Your task to perform on an android device: turn off smart reply in the gmail app Image 0: 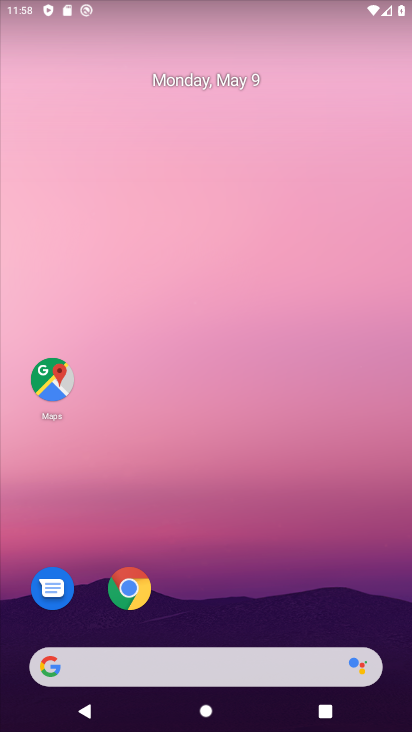
Step 0: drag from (252, 521) to (213, 0)
Your task to perform on an android device: turn off smart reply in the gmail app Image 1: 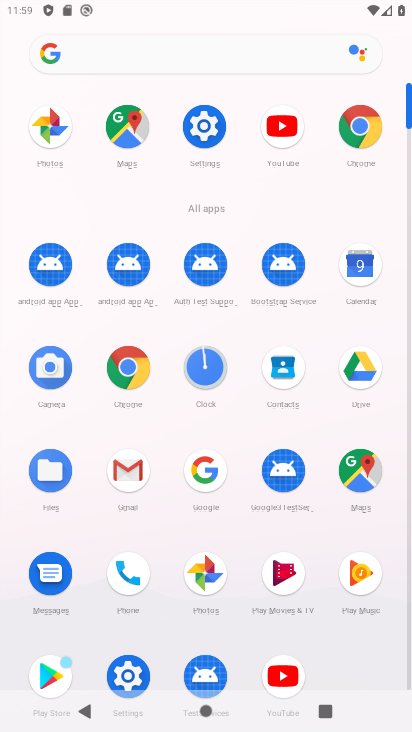
Step 1: click (130, 471)
Your task to perform on an android device: turn off smart reply in the gmail app Image 2: 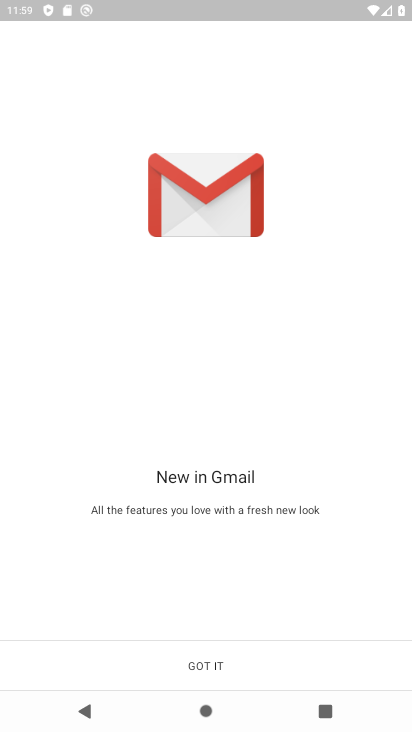
Step 2: click (224, 660)
Your task to perform on an android device: turn off smart reply in the gmail app Image 3: 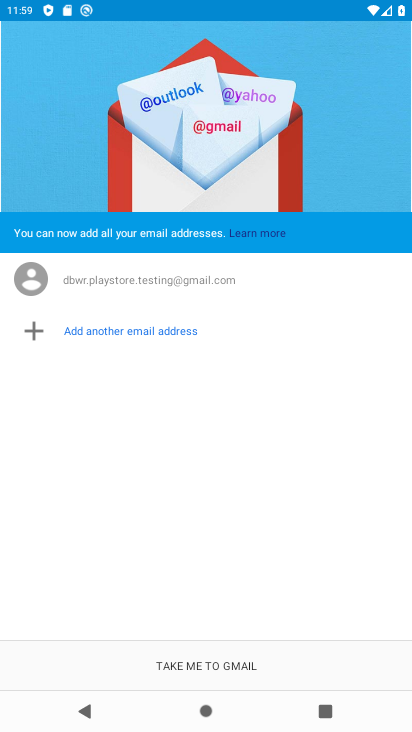
Step 3: click (239, 660)
Your task to perform on an android device: turn off smart reply in the gmail app Image 4: 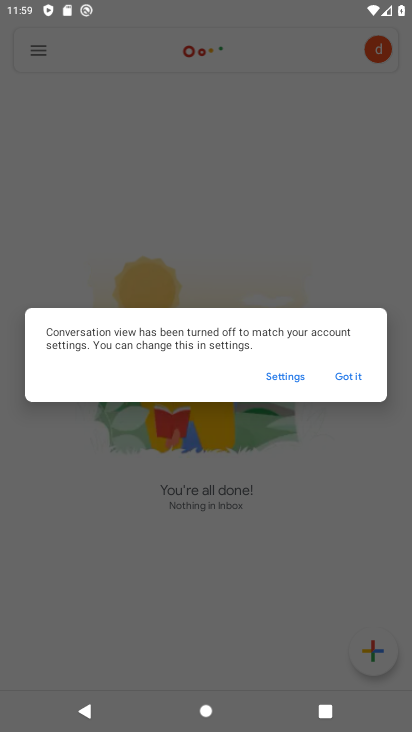
Step 4: click (344, 370)
Your task to perform on an android device: turn off smart reply in the gmail app Image 5: 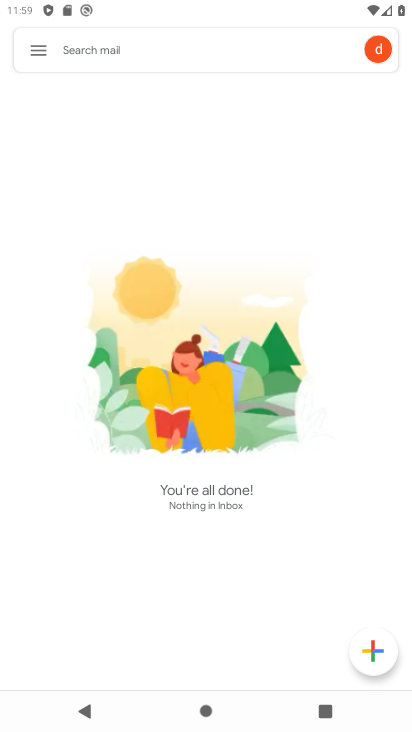
Step 5: click (25, 38)
Your task to perform on an android device: turn off smart reply in the gmail app Image 6: 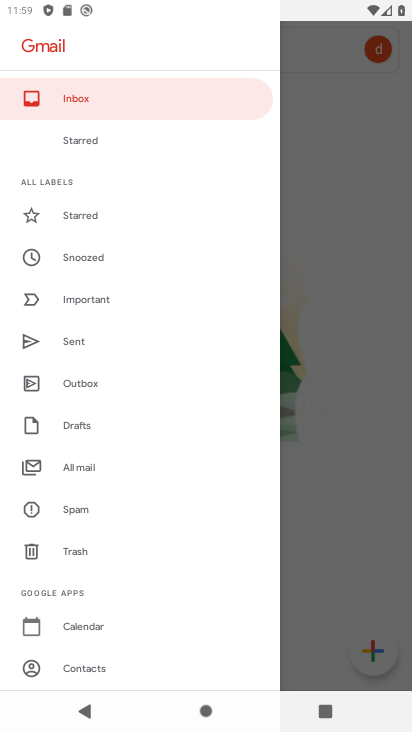
Step 6: drag from (115, 513) to (111, 415)
Your task to perform on an android device: turn off smart reply in the gmail app Image 7: 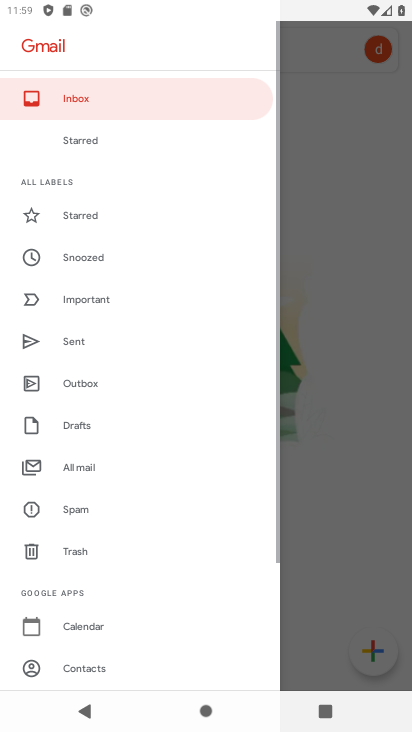
Step 7: drag from (128, 519) to (151, 368)
Your task to perform on an android device: turn off smart reply in the gmail app Image 8: 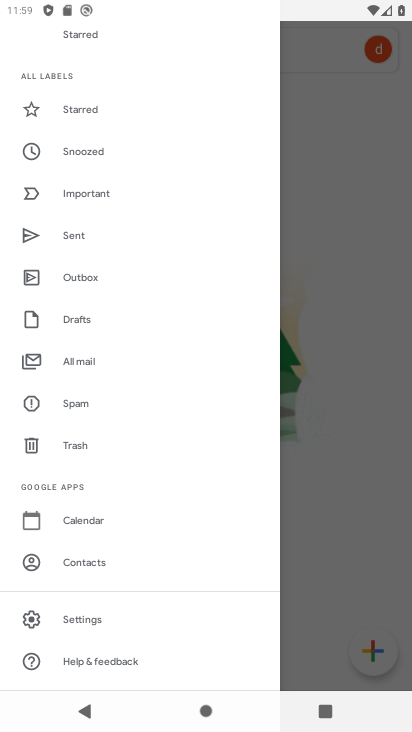
Step 8: click (131, 614)
Your task to perform on an android device: turn off smart reply in the gmail app Image 9: 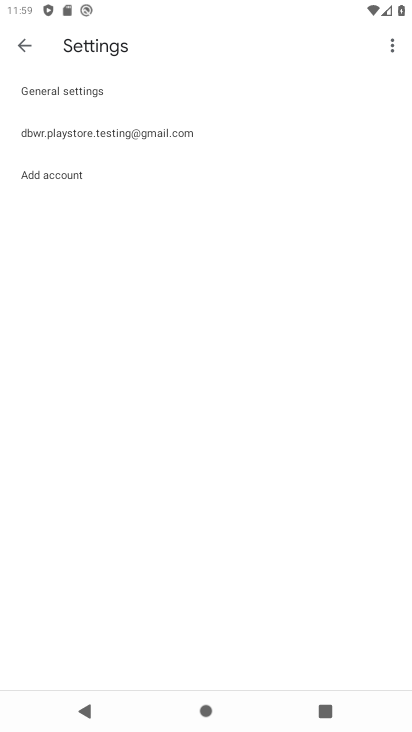
Step 9: click (167, 121)
Your task to perform on an android device: turn off smart reply in the gmail app Image 10: 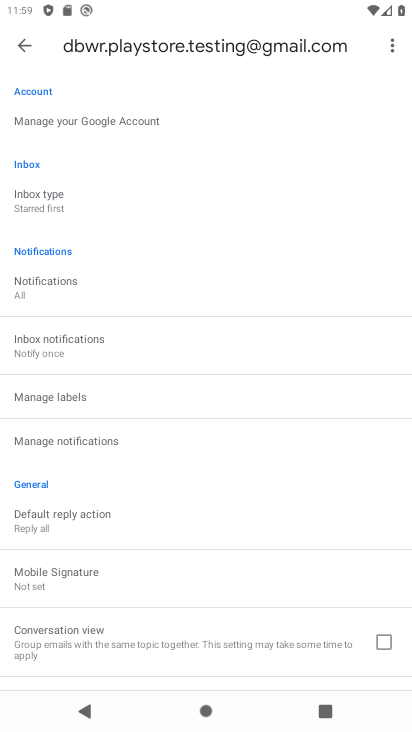
Step 10: drag from (210, 467) to (220, 180)
Your task to perform on an android device: turn off smart reply in the gmail app Image 11: 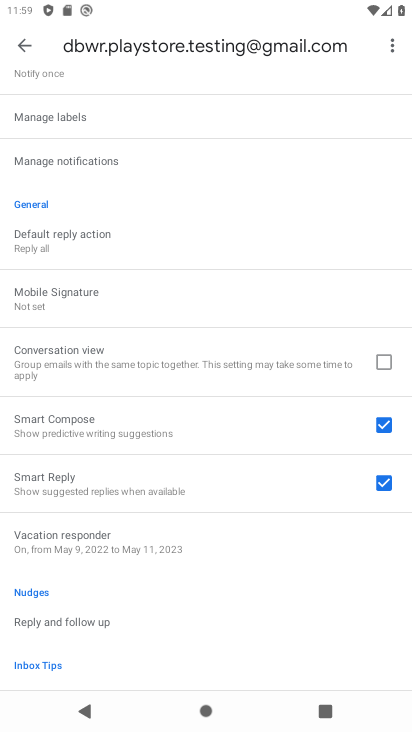
Step 11: click (379, 481)
Your task to perform on an android device: turn off smart reply in the gmail app Image 12: 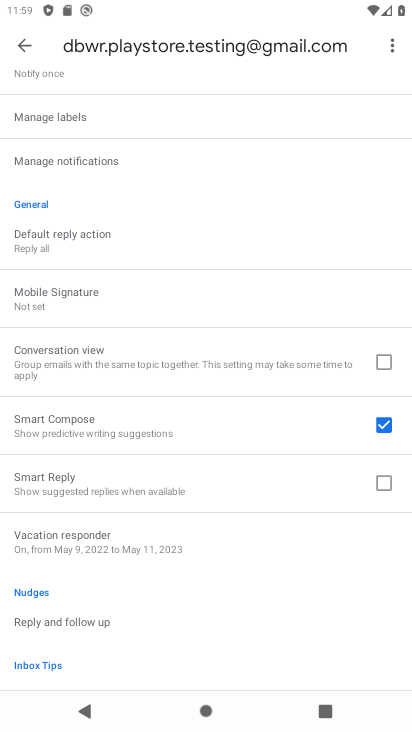
Step 12: task complete